Your task to perform on an android device: turn off data saver in the chrome app Image 0: 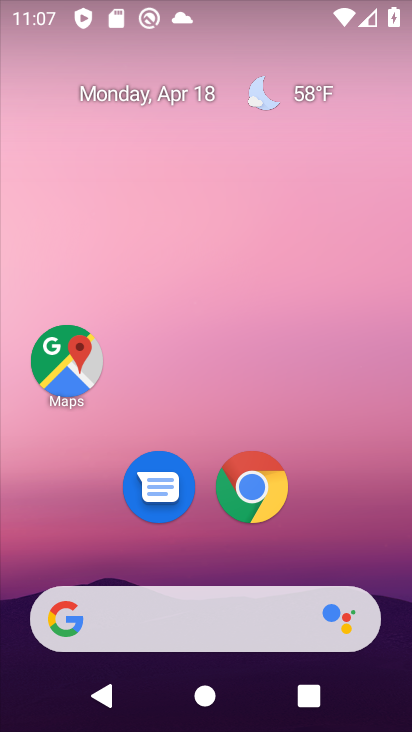
Step 0: drag from (356, 488) to (358, 187)
Your task to perform on an android device: turn off data saver in the chrome app Image 1: 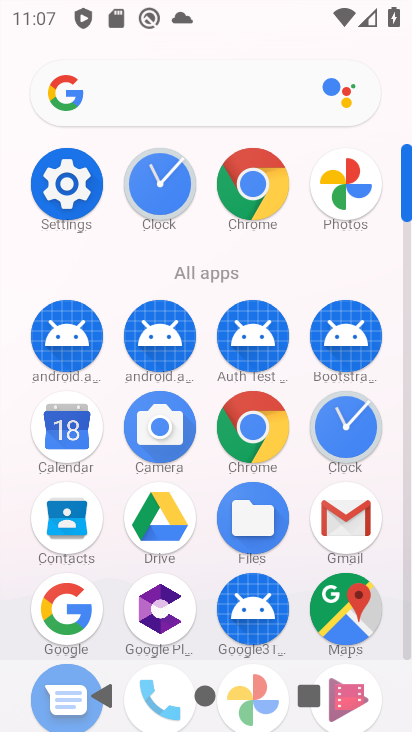
Step 1: click (88, 169)
Your task to perform on an android device: turn off data saver in the chrome app Image 2: 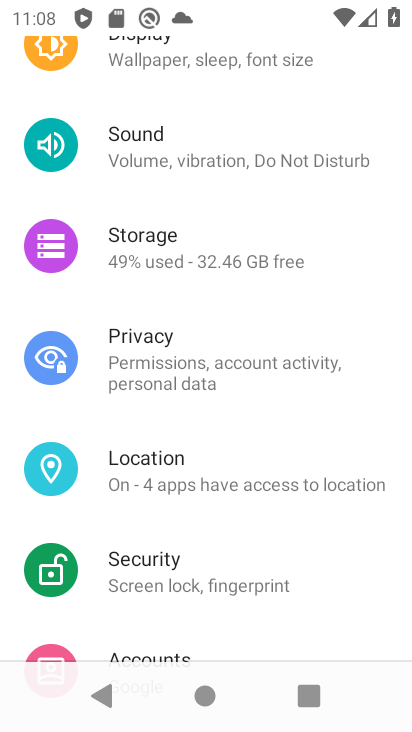
Step 2: press home button
Your task to perform on an android device: turn off data saver in the chrome app Image 3: 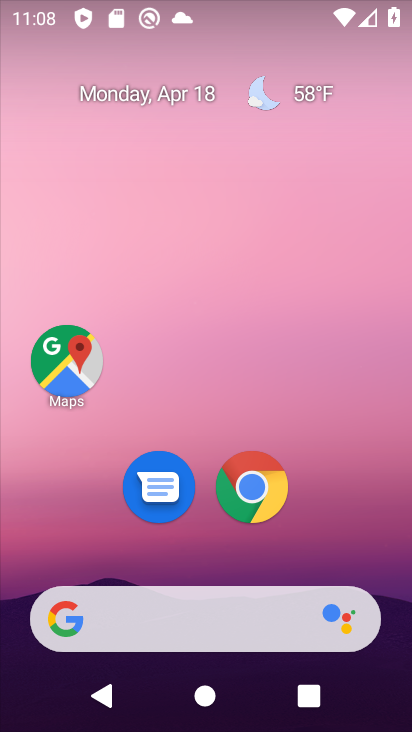
Step 3: click (241, 489)
Your task to perform on an android device: turn off data saver in the chrome app Image 4: 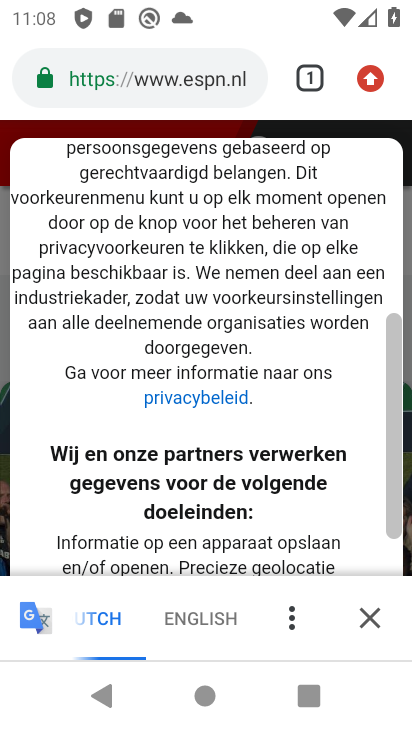
Step 4: click (370, 83)
Your task to perform on an android device: turn off data saver in the chrome app Image 5: 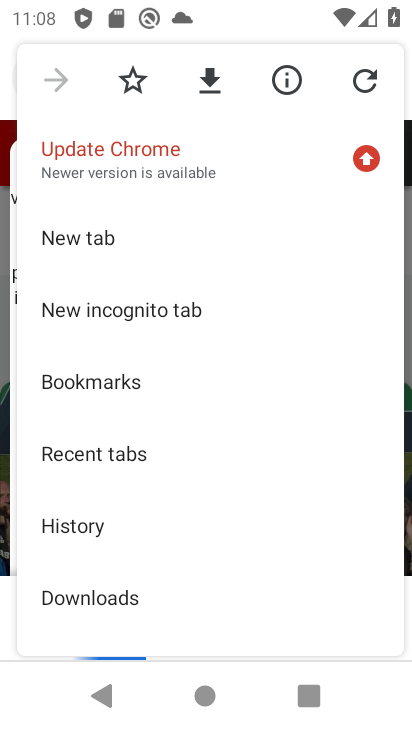
Step 5: drag from (170, 547) to (173, 338)
Your task to perform on an android device: turn off data saver in the chrome app Image 6: 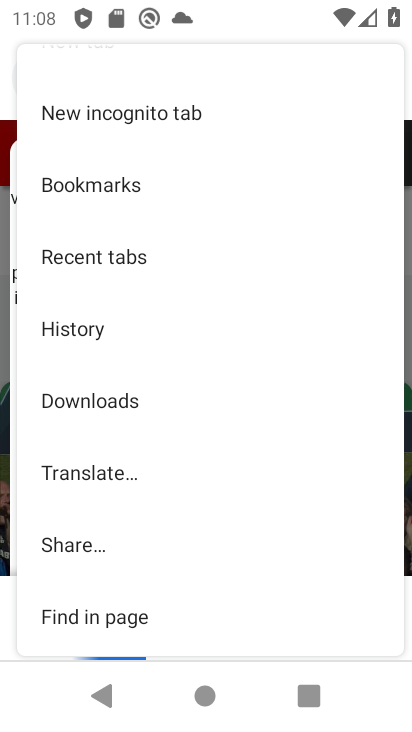
Step 6: drag from (194, 582) to (182, 340)
Your task to perform on an android device: turn off data saver in the chrome app Image 7: 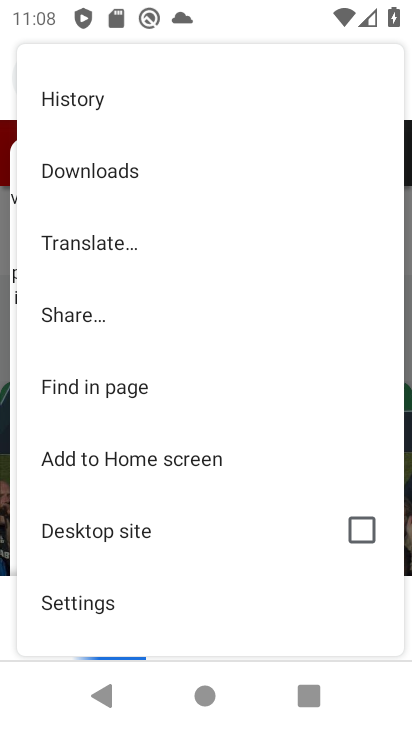
Step 7: click (188, 603)
Your task to perform on an android device: turn off data saver in the chrome app Image 8: 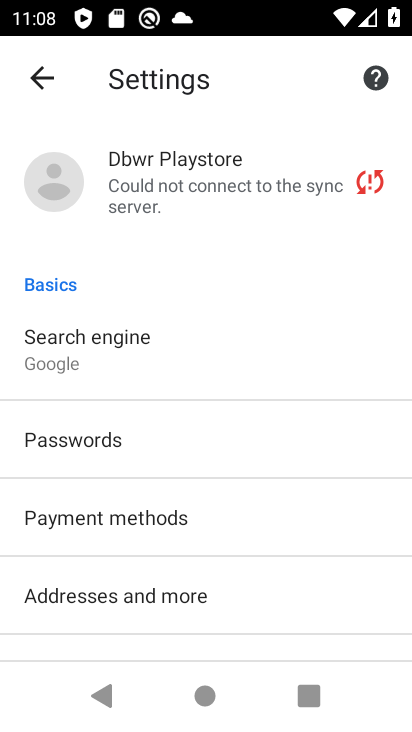
Step 8: drag from (259, 625) to (248, 316)
Your task to perform on an android device: turn off data saver in the chrome app Image 9: 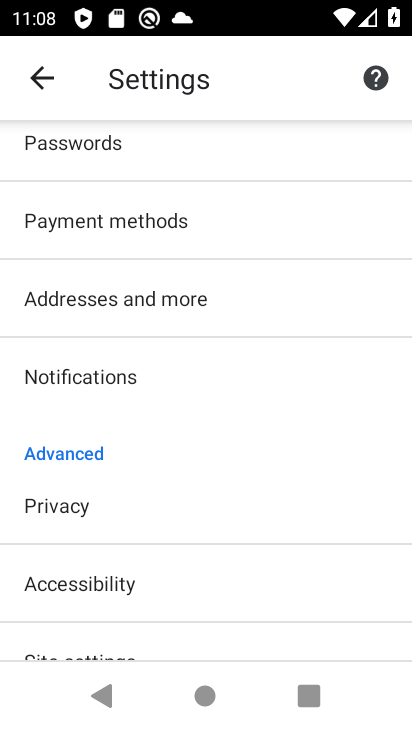
Step 9: drag from (257, 571) to (261, 257)
Your task to perform on an android device: turn off data saver in the chrome app Image 10: 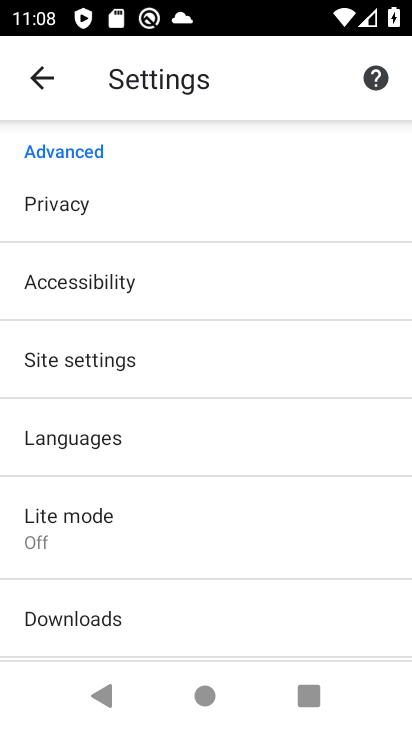
Step 10: click (153, 519)
Your task to perform on an android device: turn off data saver in the chrome app Image 11: 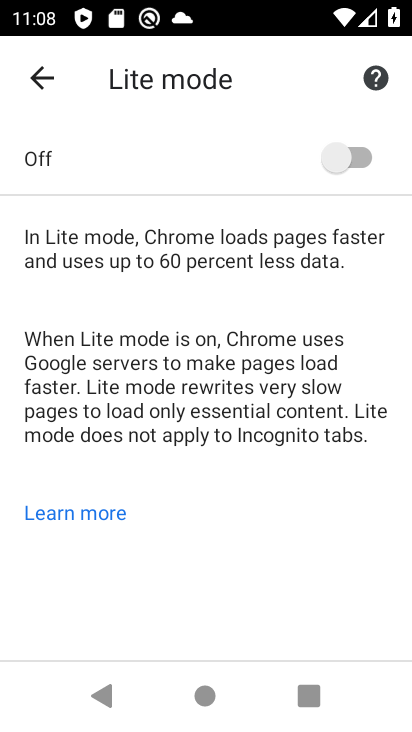
Step 11: task complete